Your task to perform on an android device: toggle improve location accuracy Image 0: 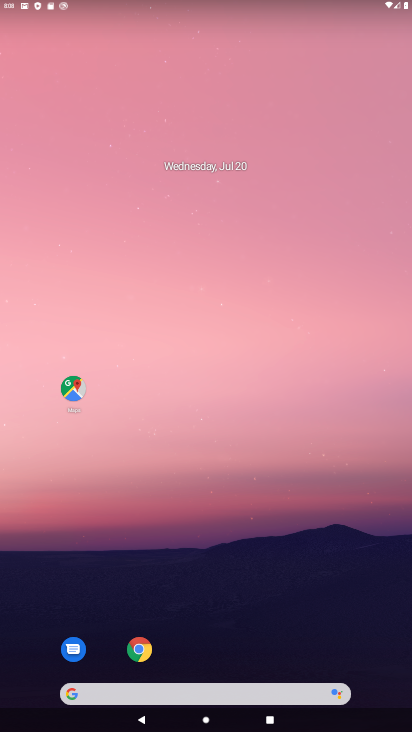
Step 0: drag from (165, 652) to (199, 207)
Your task to perform on an android device: toggle improve location accuracy Image 1: 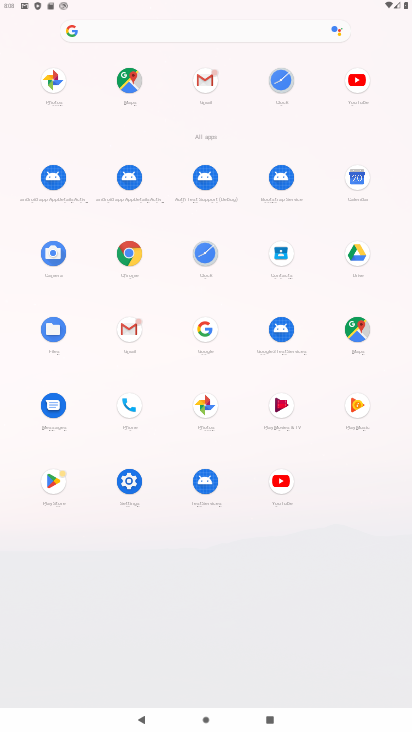
Step 1: click (130, 483)
Your task to perform on an android device: toggle improve location accuracy Image 2: 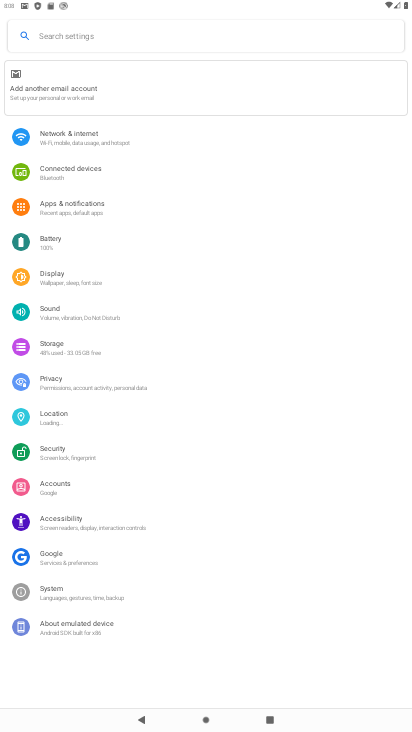
Step 2: click (52, 417)
Your task to perform on an android device: toggle improve location accuracy Image 3: 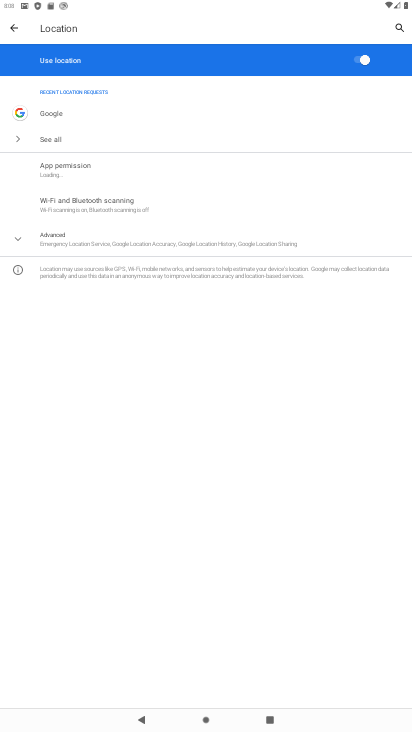
Step 3: click (45, 231)
Your task to perform on an android device: toggle improve location accuracy Image 4: 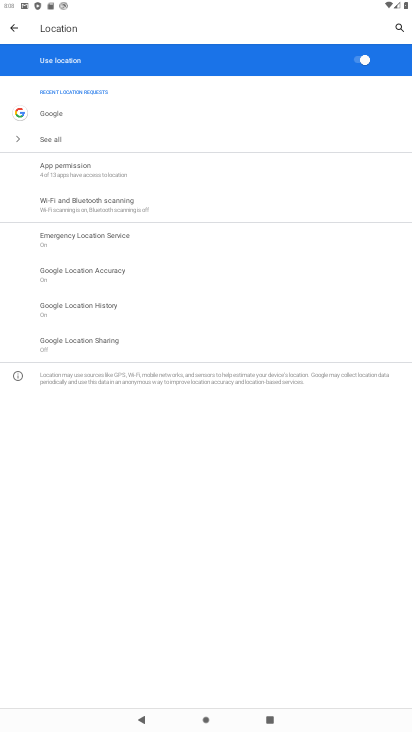
Step 4: click (82, 265)
Your task to perform on an android device: toggle improve location accuracy Image 5: 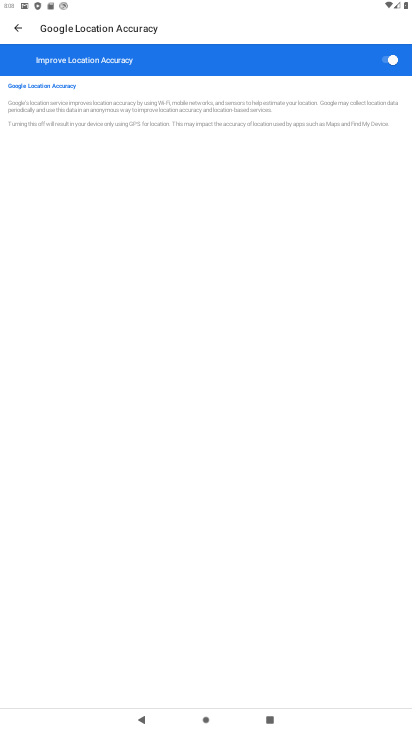
Step 5: click (388, 57)
Your task to perform on an android device: toggle improve location accuracy Image 6: 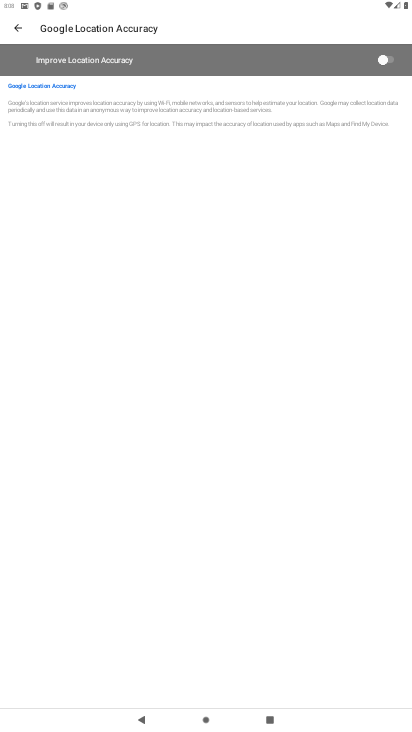
Step 6: task complete